Your task to perform on an android device: Open eBay Image 0: 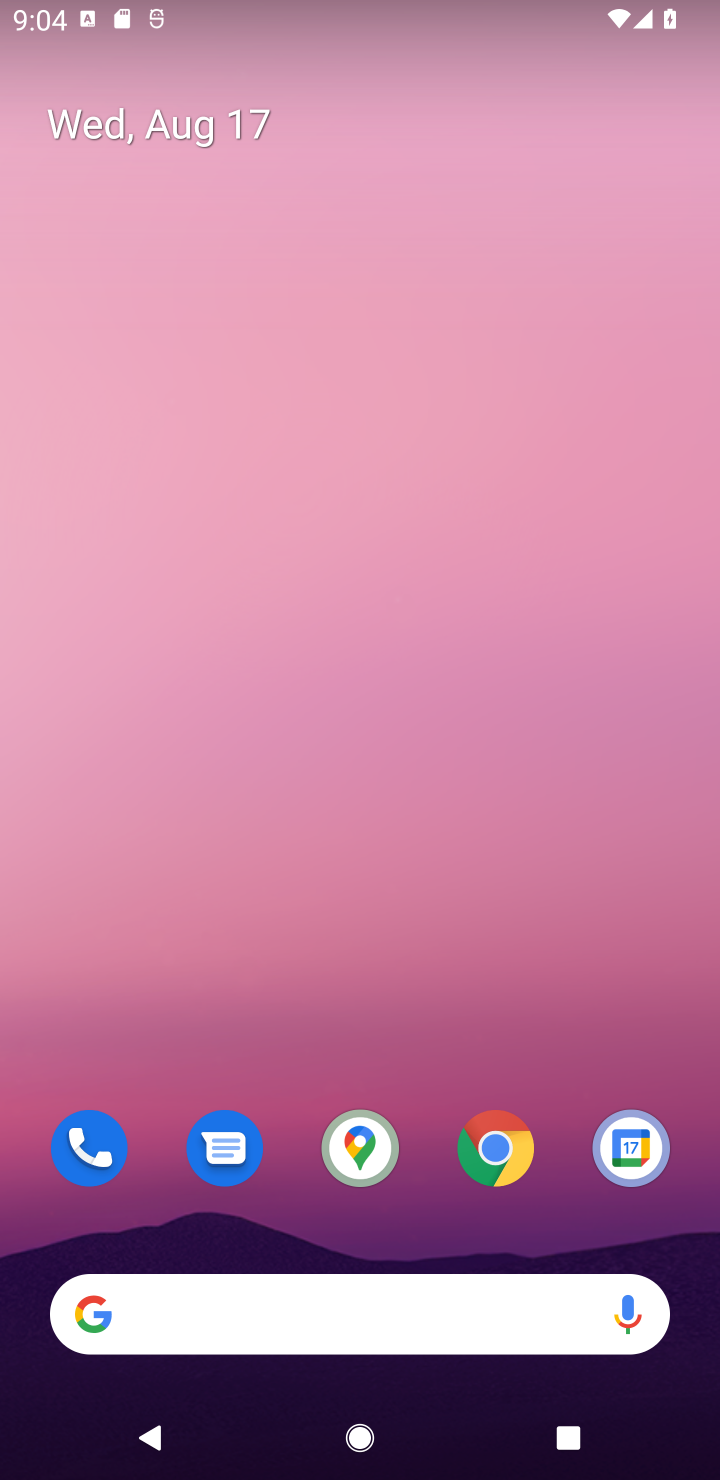
Step 0: click (498, 1151)
Your task to perform on an android device: Open eBay Image 1: 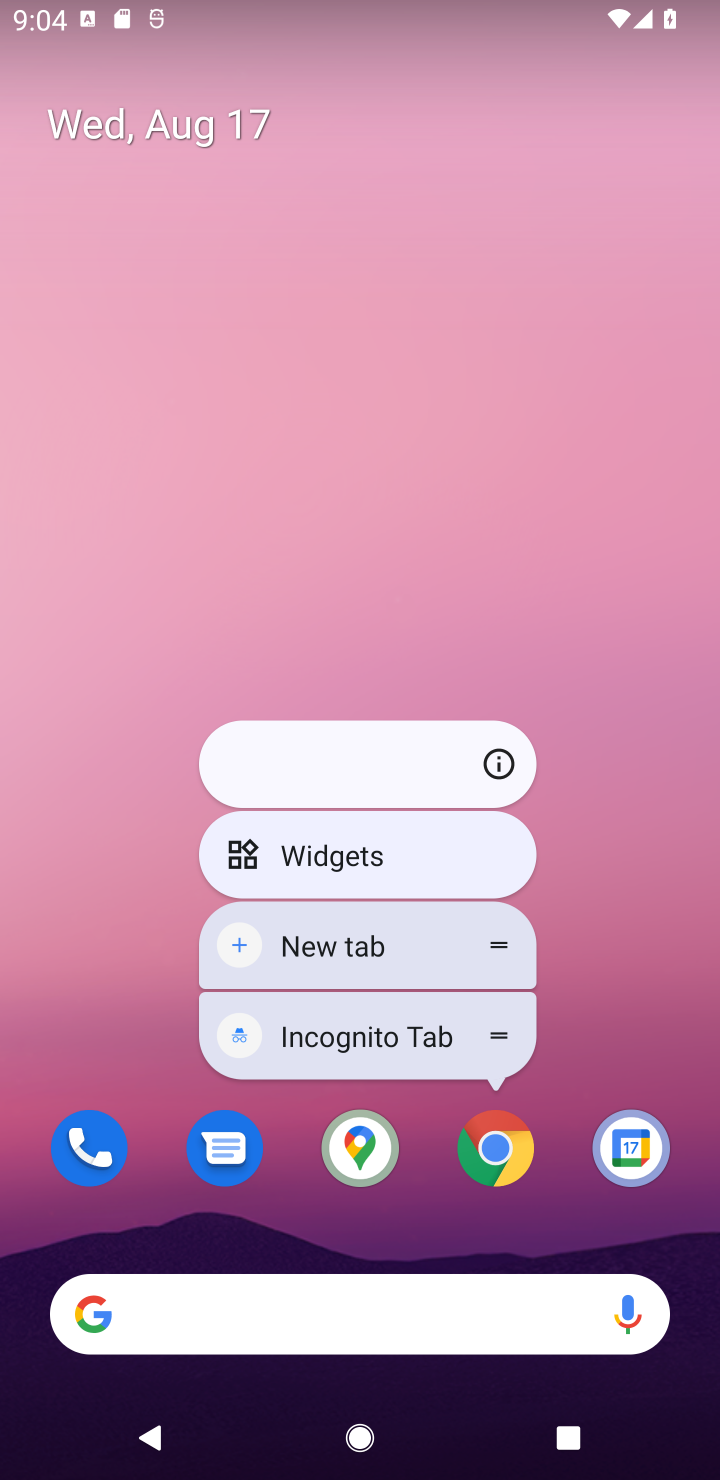
Step 1: click (498, 1151)
Your task to perform on an android device: Open eBay Image 2: 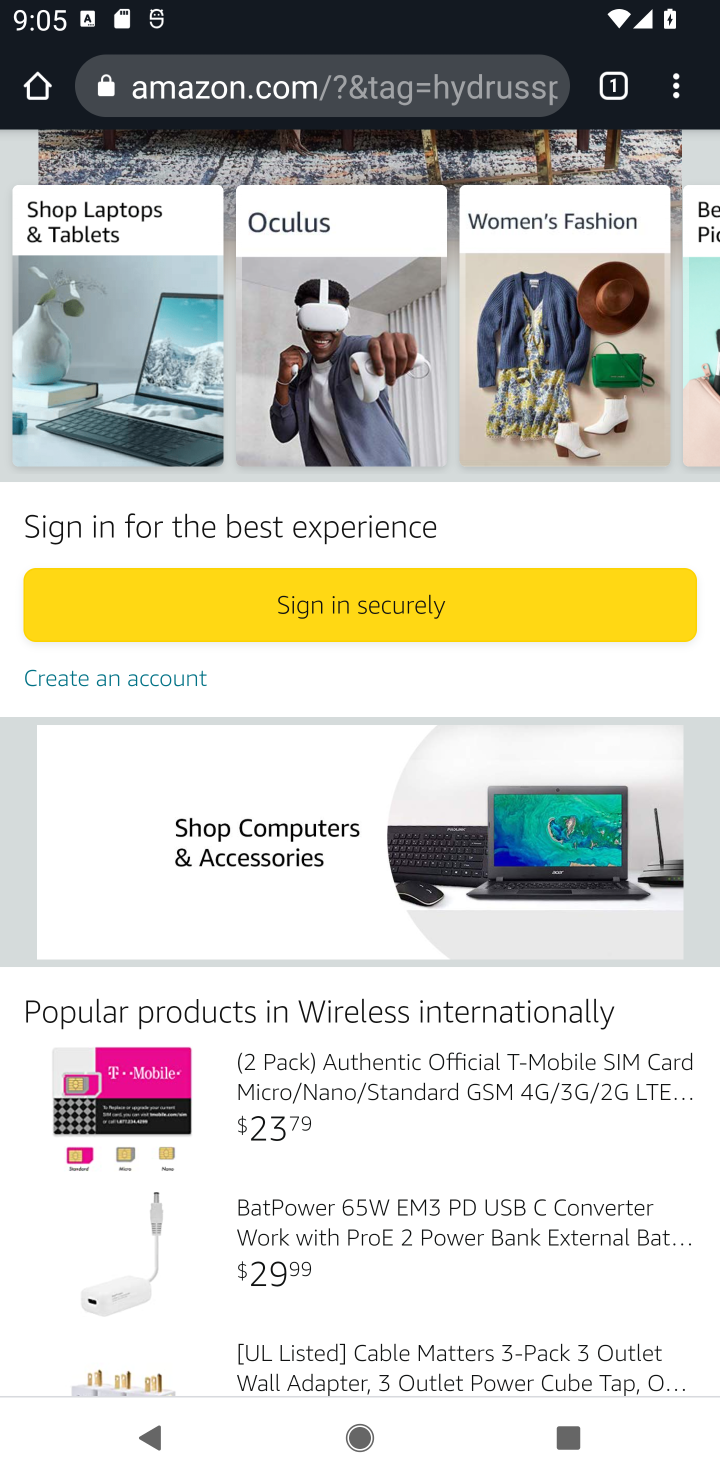
Step 2: click (551, 70)
Your task to perform on an android device: Open eBay Image 3: 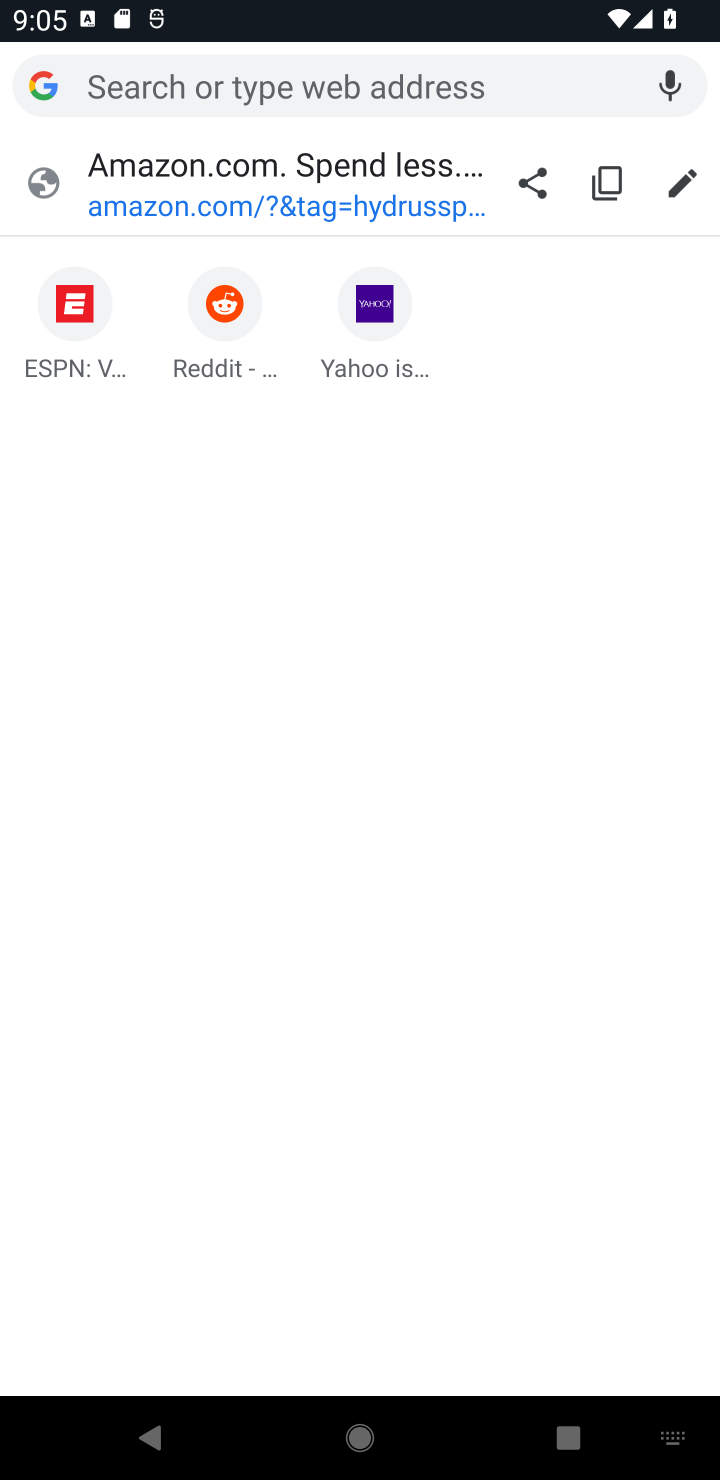
Step 3: type "eBay"
Your task to perform on an android device: Open eBay Image 4: 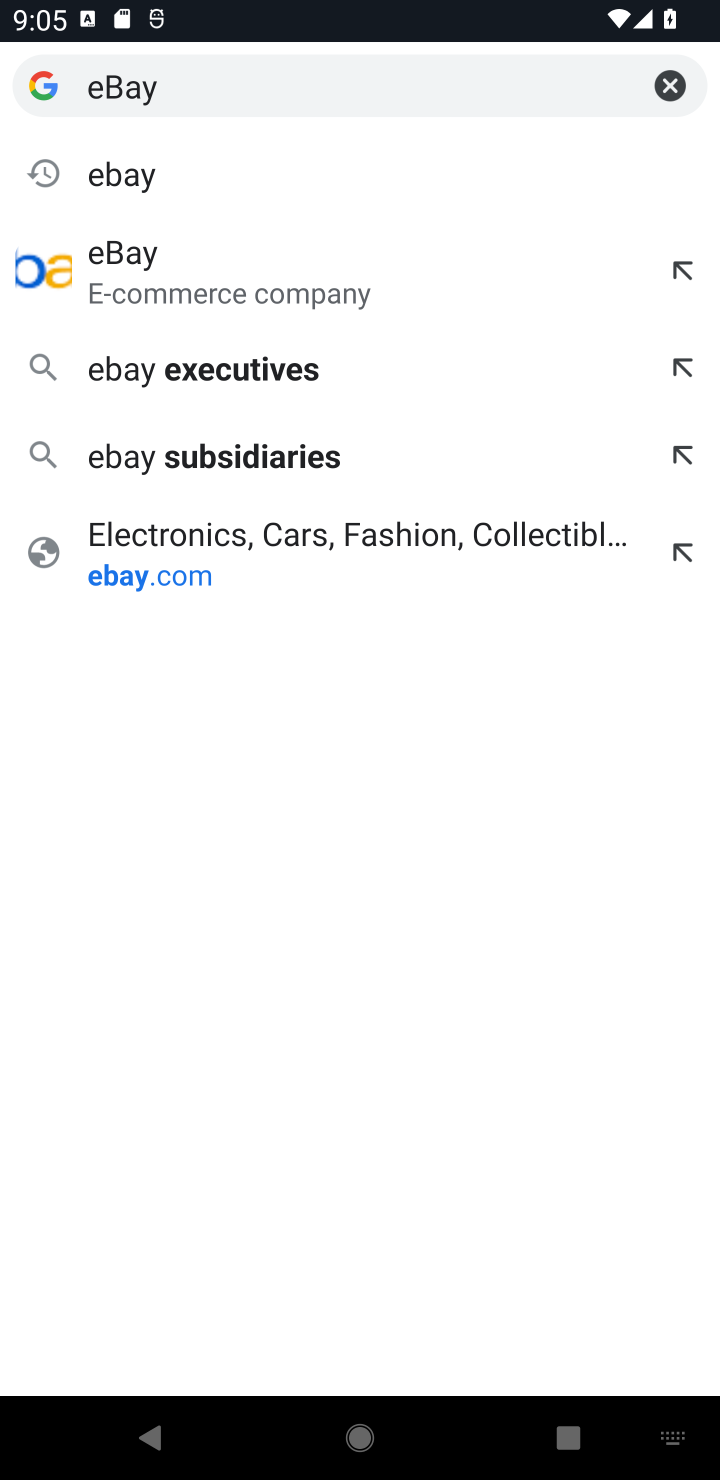
Step 4: click (121, 165)
Your task to perform on an android device: Open eBay Image 5: 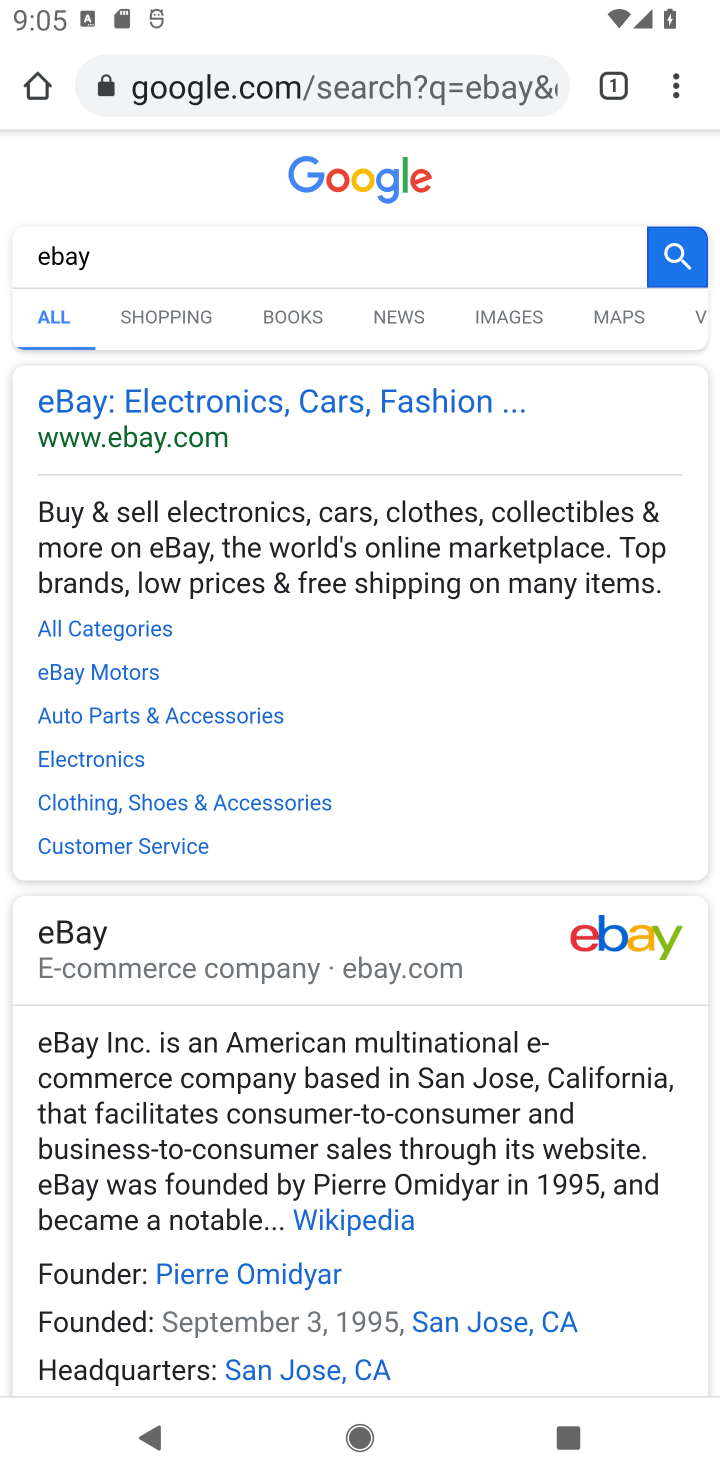
Step 5: click (149, 412)
Your task to perform on an android device: Open eBay Image 6: 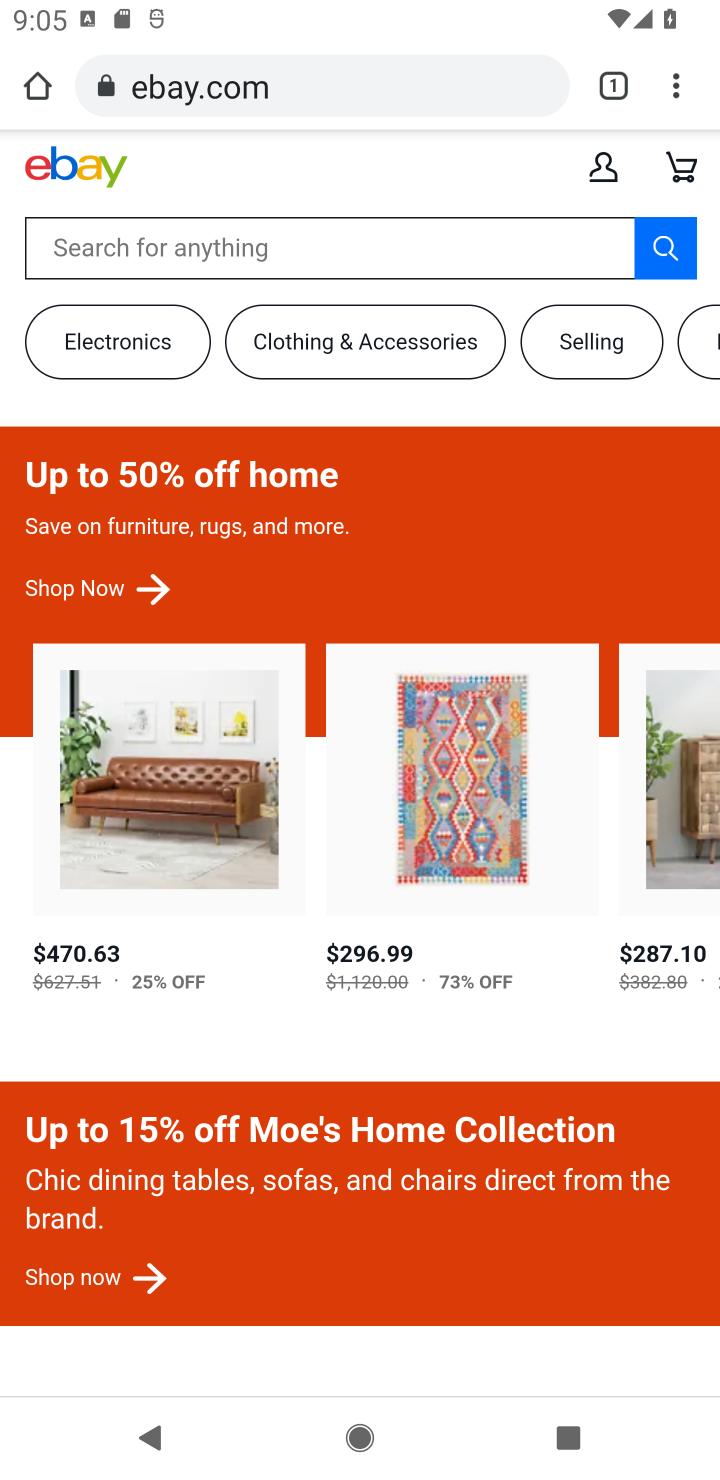
Step 6: task complete